Your task to perform on an android device: Open calendar and show me the third week of next month Image 0: 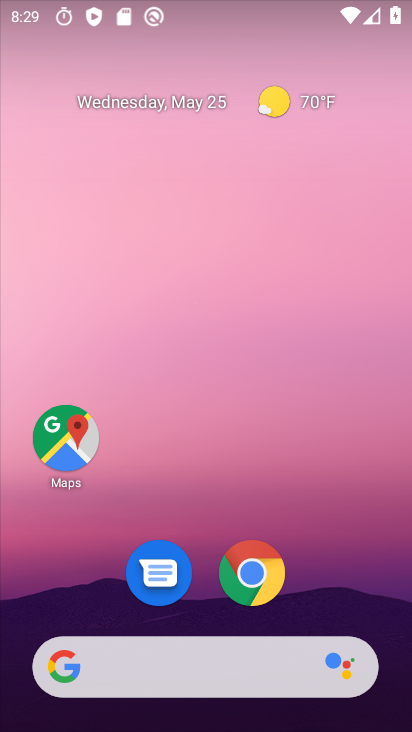
Step 0: drag from (399, 619) to (340, 191)
Your task to perform on an android device: Open calendar and show me the third week of next month Image 1: 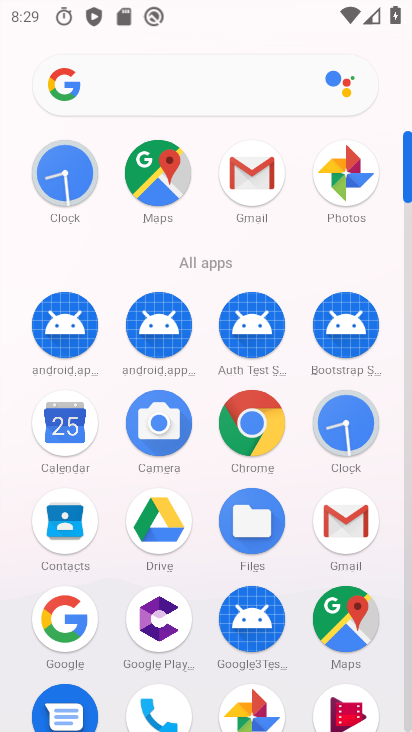
Step 1: click (65, 432)
Your task to perform on an android device: Open calendar and show me the third week of next month Image 2: 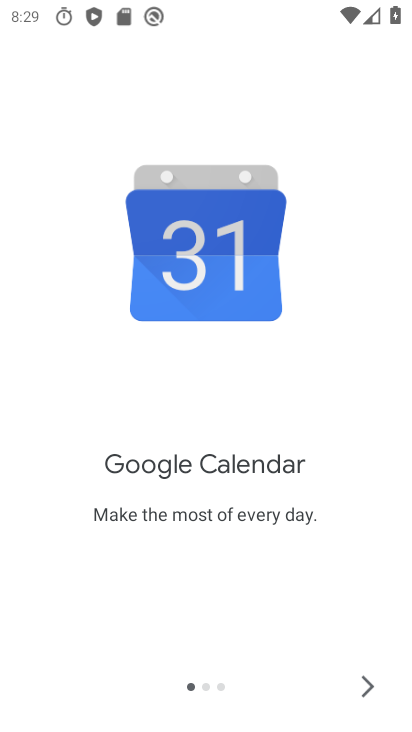
Step 2: click (367, 689)
Your task to perform on an android device: Open calendar and show me the third week of next month Image 3: 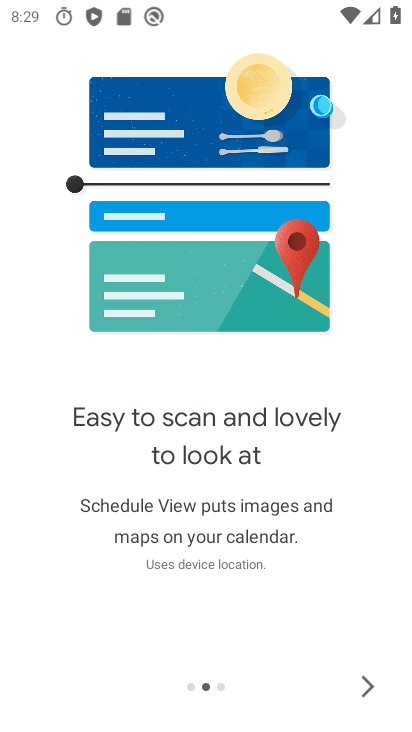
Step 3: click (367, 689)
Your task to perform on an android device: Open calendar and show me the third week of next month Image 4: 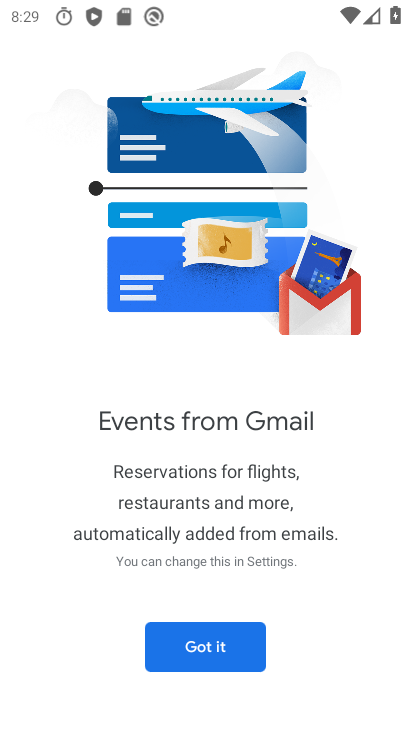
Step 4: click (367, 689)
Your task to perform on an android device: Open calendar and show me the third week of next month Image 5: 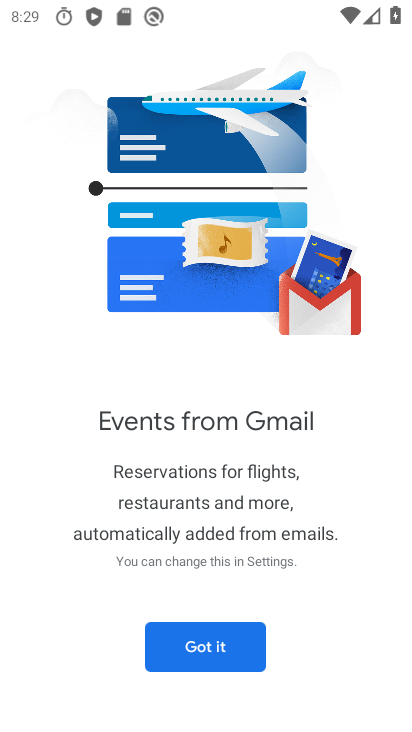
Step 5: click (211, 653)
Your task to perform on an android device: Open calendar and show me the third week of next month Image 6: 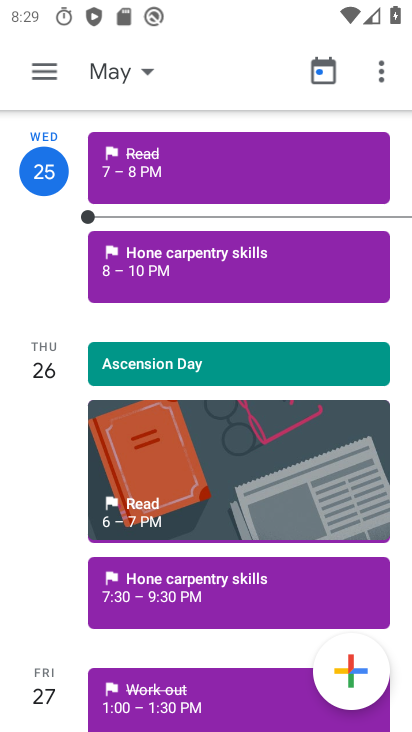
Step 6: click (48, 79)
Your task to perform on an android device: Open calendar and show me the third week of next month Image 7: 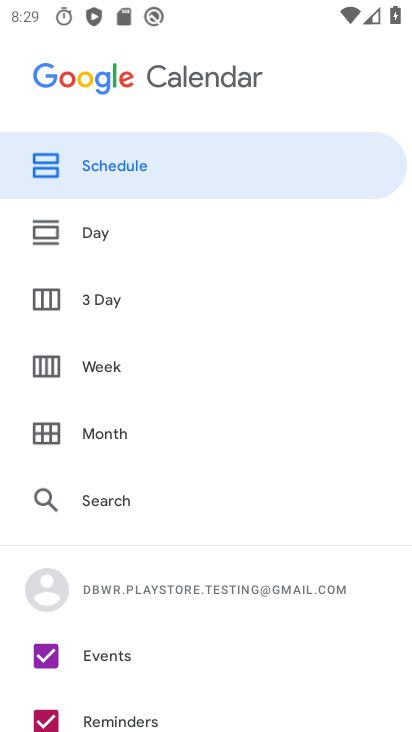
Step 7: click (111, 359)
Your task to perform on an android device: Open calendar and show me the third week of next month Image 8: 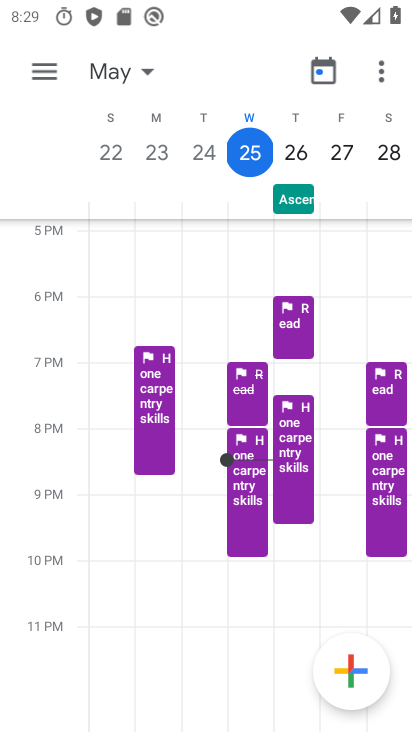
Step 8: click (133, 75)
Your task to perform on an android device: Open calendar and show me the third week of next month Image 9: 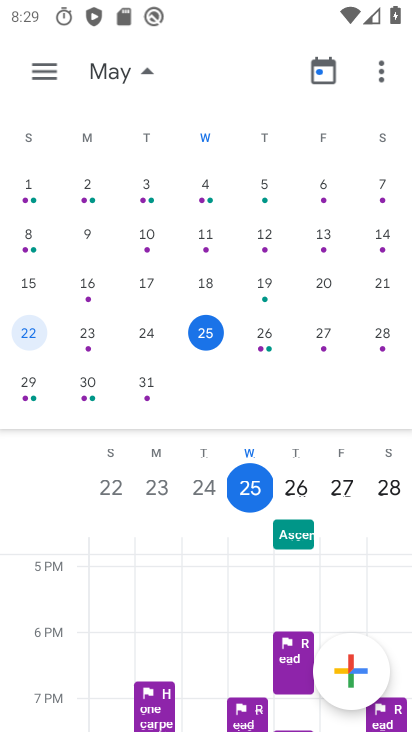
Step 9: drag from (376, 215) to (7, 248)
Your task to perform on an android device: Open calendar and show me the third week of next month Image 10: 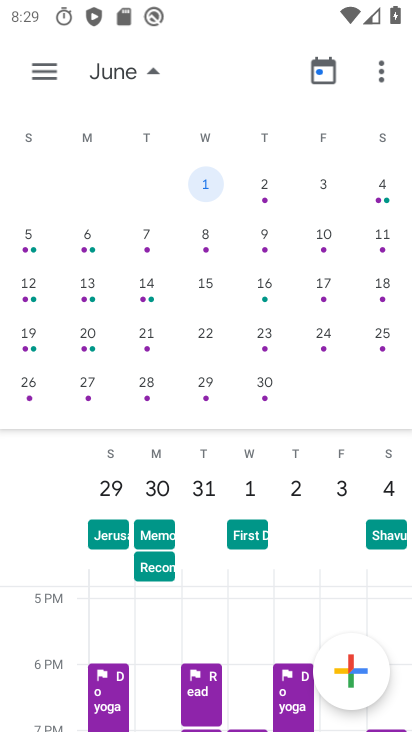
Step 10: click (148, 282)
Your task to perform on an android device: Open calendar and show me the third week of next month Image 11: 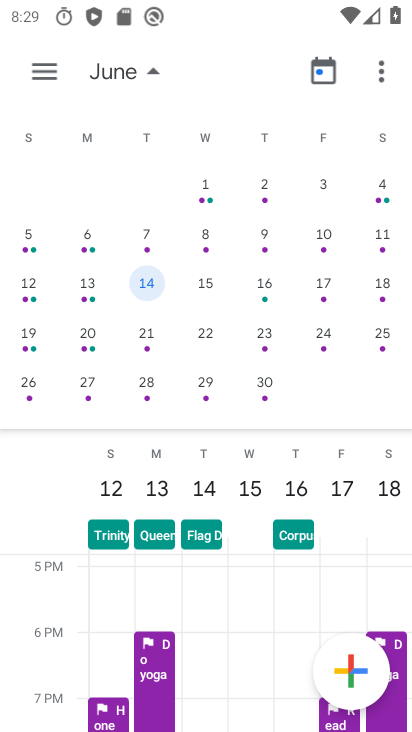
Step 11: task complete